Your task to perform on an android device: remove spam from my inbox in the gmail app Image 0: 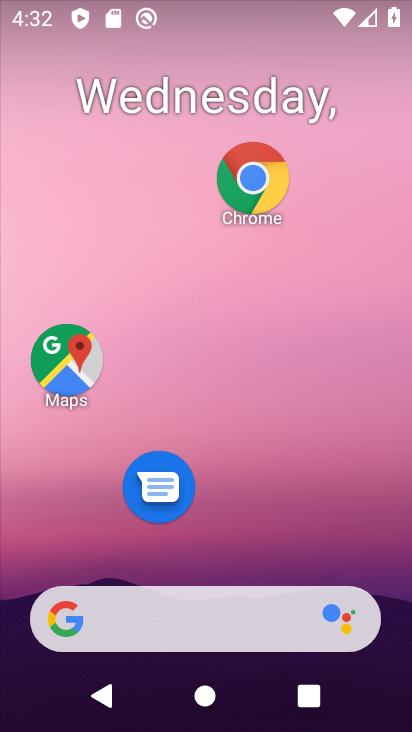
Step 0: drag from (285, 548) to (216, 134)
Your task to perform on an android device: remove spam from my inbox in the gmail app Image 1: 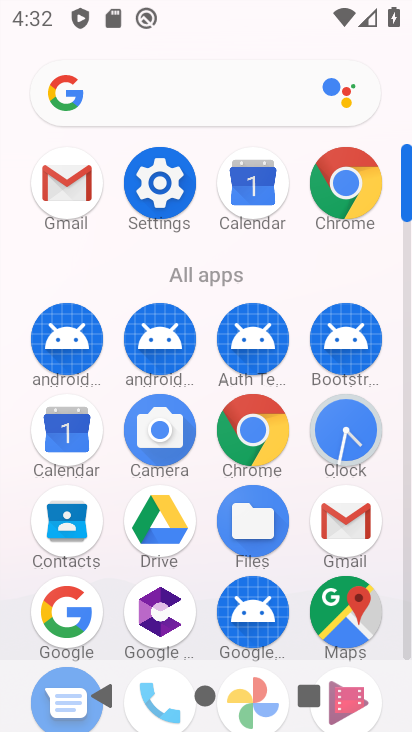
Step 1: click (71, 173)
Your task to perform on an android device: remove spam from my inbox in the gmail app Image 2: 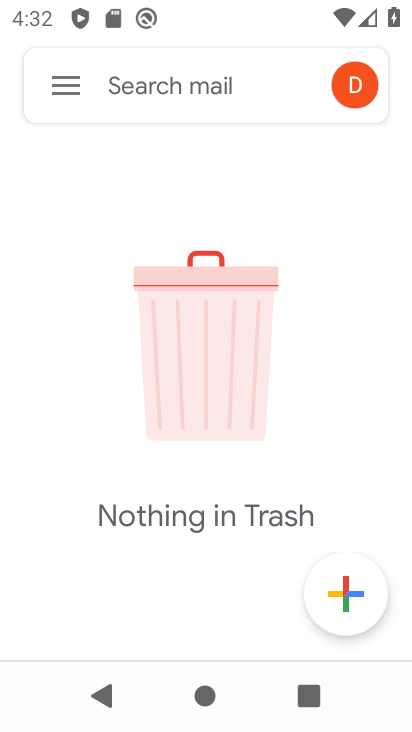
Step 2: click (76, 90)
Your task to perform on an android device: remove spam from my inbox in the gmail app Image 3: 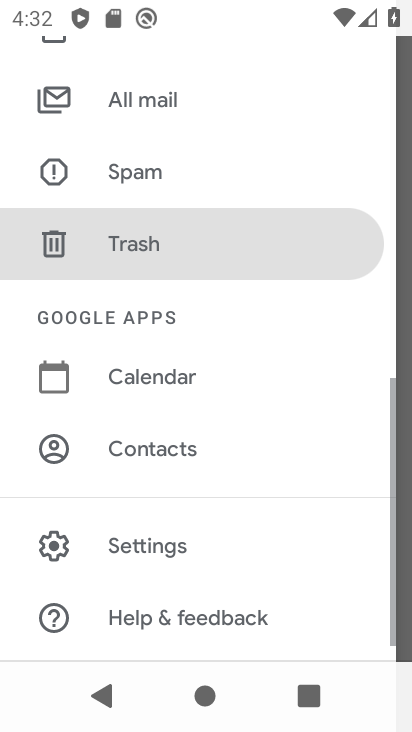
Step 3: drag from (182, 164) to (288, 711)
Your task to perform on an android device: remove spam from my inbox in the gmail app Image 4: 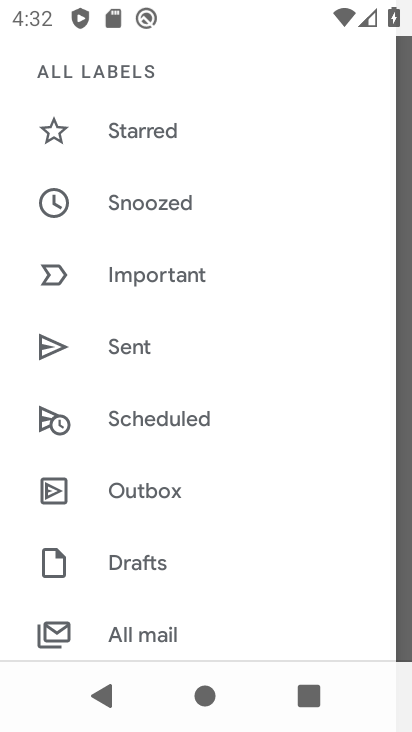
Step 4: drag from (197, 495) to (198, 645)
Your task to perform on an android device: remove spam from my inbox in the gmail app Image 5: 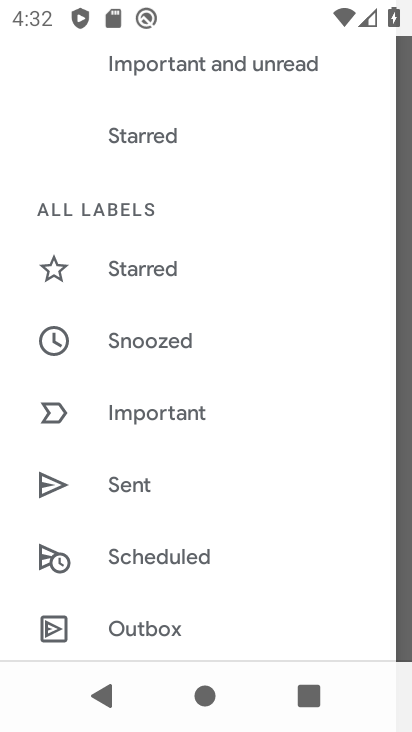
Step 5: drag from (140, 177) to (269, 726)
Your task to perform on an android device: remove spam from my inbox in the gmail app Image 6: 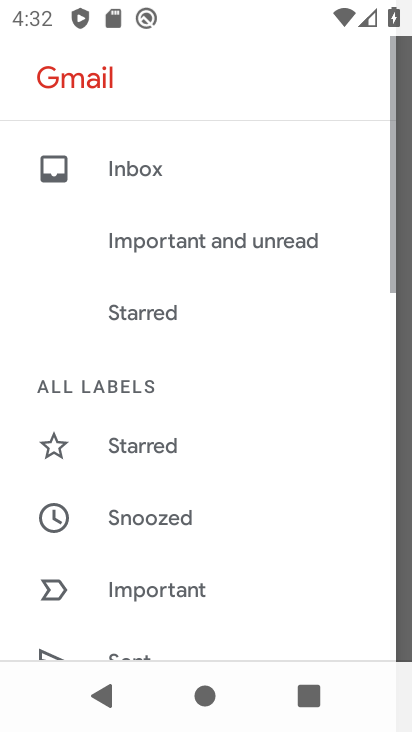
Step 6: click (134, 179)
Your task to perform on an android device: remove spam from my inbox in the gmail app Image 7: 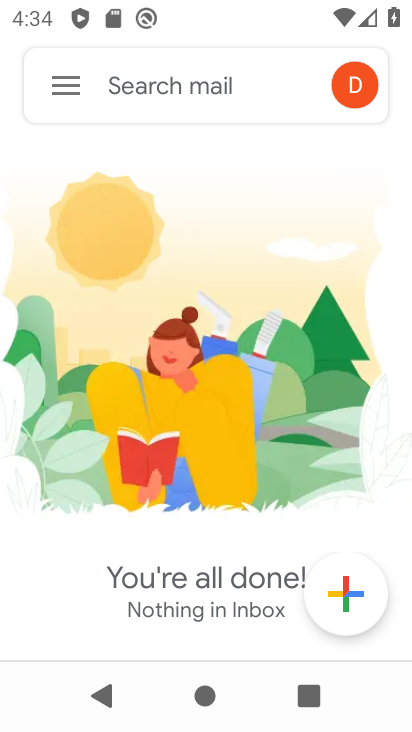
Step 7: task complete